Your task to perform on an android device: Go to internet settings Image 0: 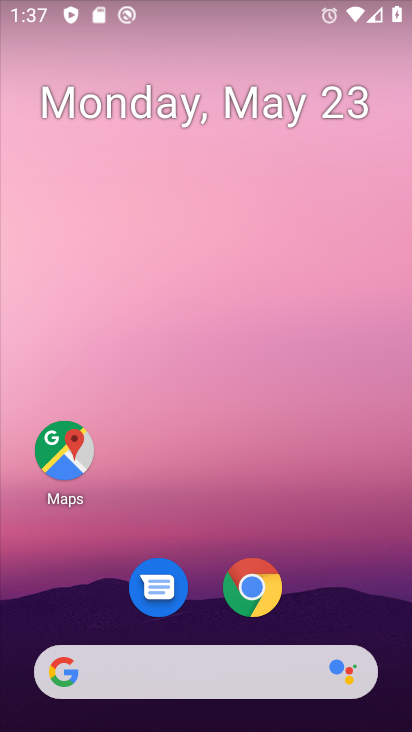
Step 0: drag from (356, 575) to (252, 22)
Your task to perform on an android device: Go to internet settings Image 1: 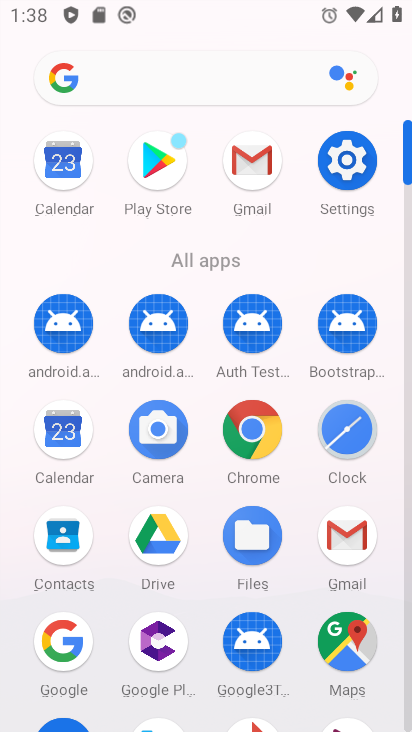
Step 1: click (345, 151)
Your task to perform on an android device: Go to internet settings Image 2: 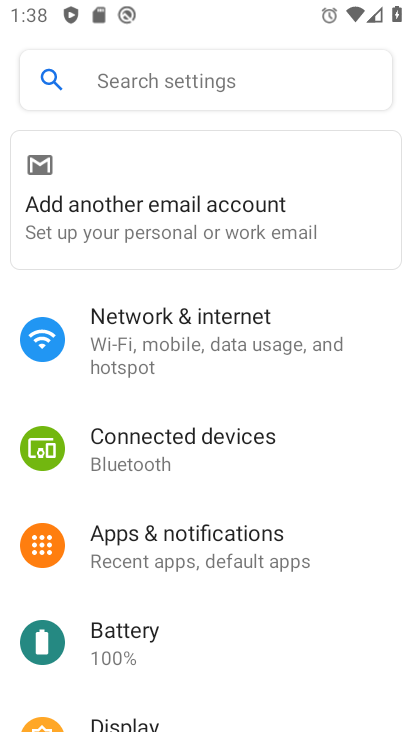
Step 2: click (280, 317)
Your task to perform on an android device: Go to internet settings Image 3: 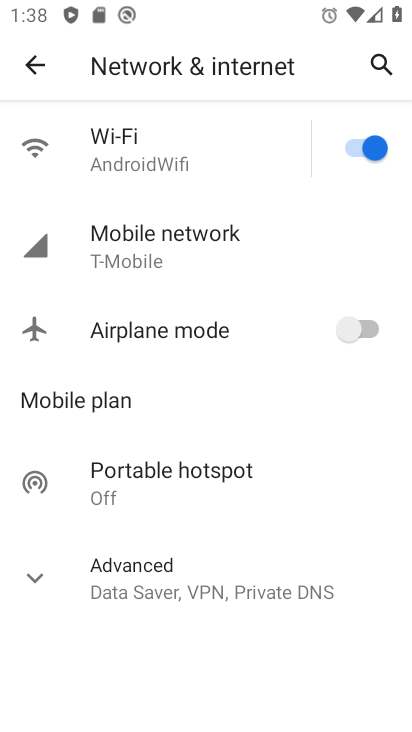
Step 3: task complete